Your task to perform on an android device: visit the assistant section in the google photos Image 0: 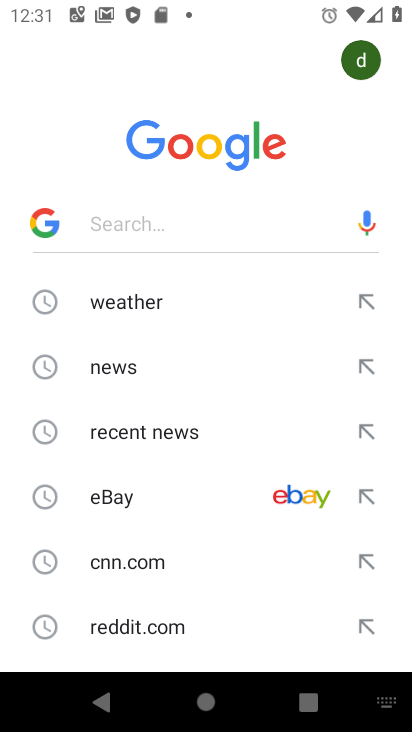
Step 0: press home button
Your task to perform on an android device: visit the assistant section in the google photos Image 1: 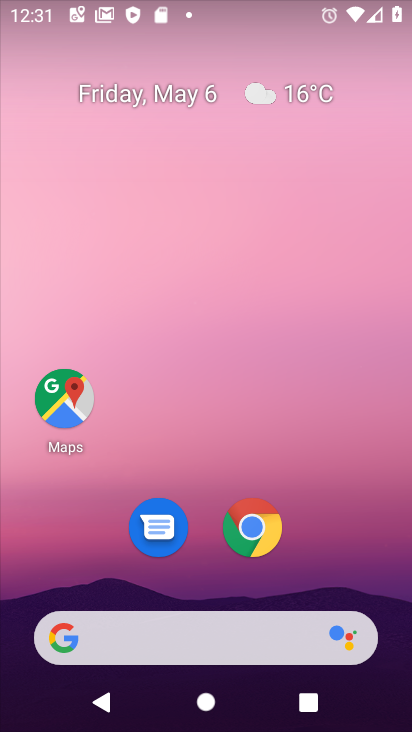
Step 1: drag from (315, 557) to (125, 115)
Your task to perform on an android device: visit the assistant section in the google photos Image 2: 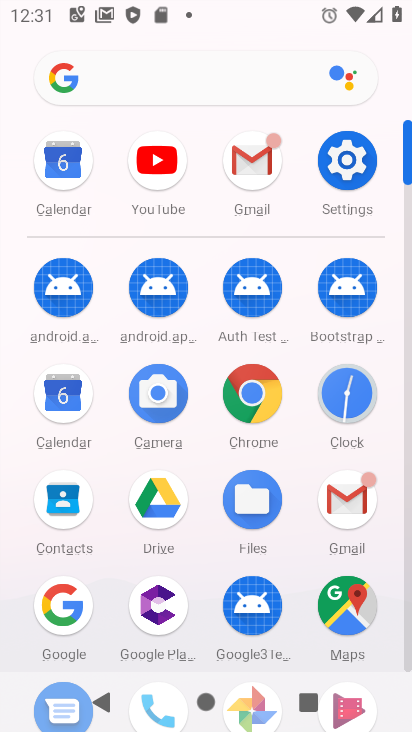
Step 2: drag from (213, 663) to (208, 349)
Your task to perform on an android device: visit the assistant section in the google photos Image 3: 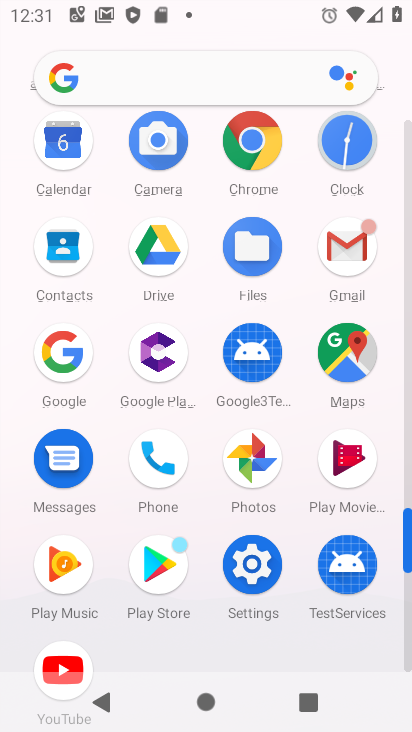
Step 3: click (254, 469)
Your task to perform on an android device: visit the assistant section in the google photos Image 4: 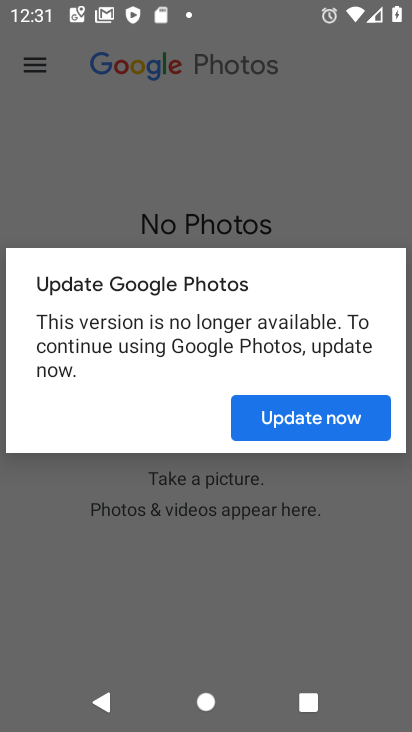
Step 4: click (295, 420)
Your task to perform on an android device: visit the assistant section in the google photos Image 5: 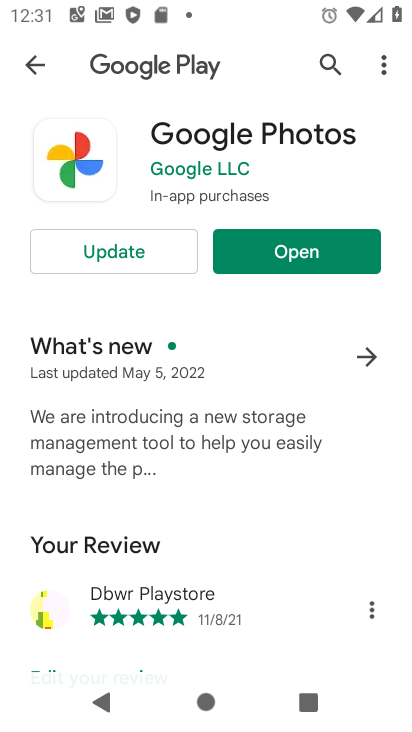
Step 5: click (110, 255)
Your task to perform on an android device: visit the assistant section in the google photos Image 6: 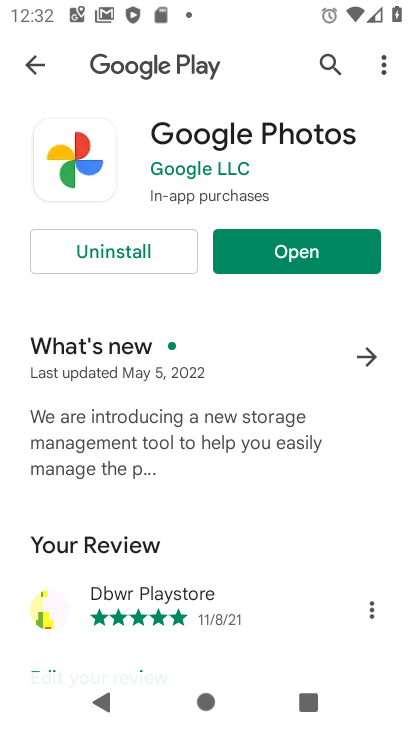
Step 6: click (279, 246)
Your task to perform on an android device: visit the assistant section in the google photos Image 7: 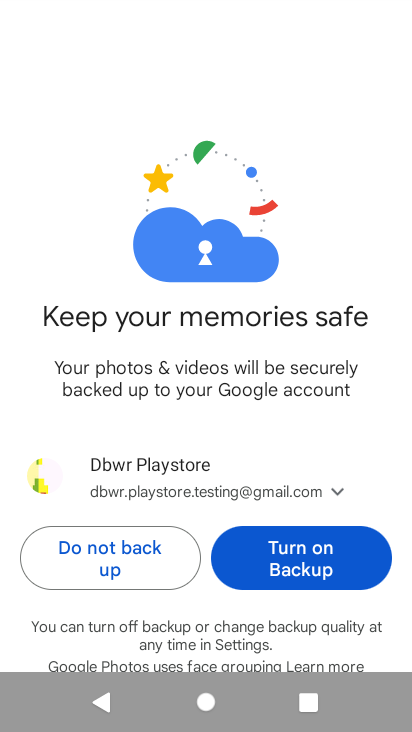
Step 7: click (163, 563)
Your task to perform on an android device: visit the assistant section in the google photos Image 8: 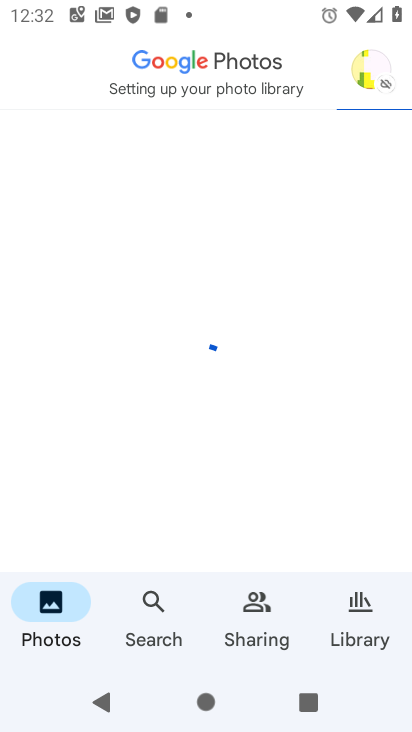
Step 8: task complete